Your task to perform on an android device: change your default location settings in chrome Image 0: 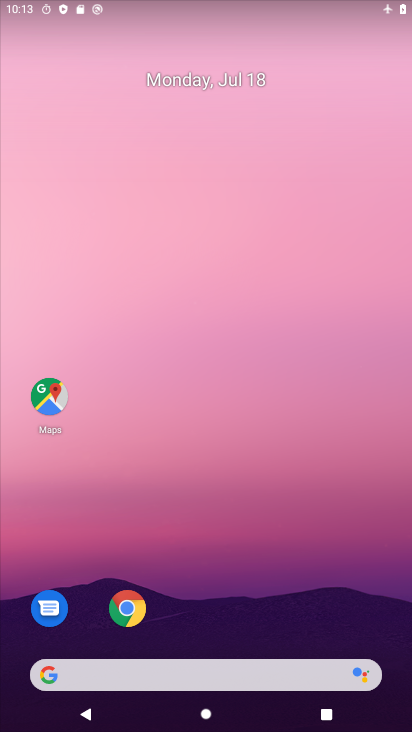
Step 0: click (305, 171)
Your task to perform on an android device: change your default location settings in chrome Image 1: 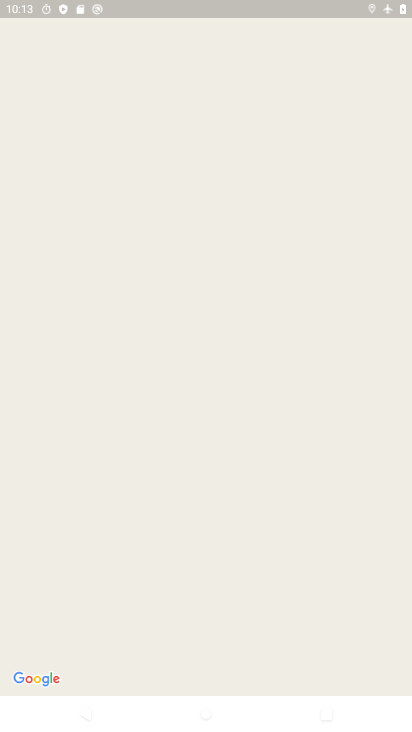
Step 1: press back button
Your task to perform on an android device: change your default location settings in chrome Image 2: 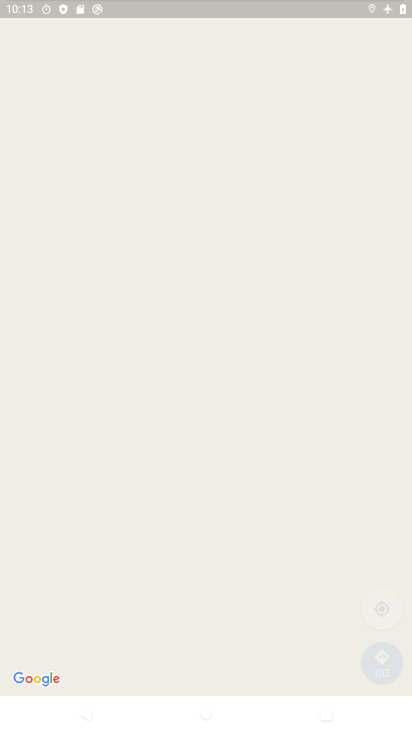
Step 2: press back button
Your task to perform on an android device: change your default location settings in chrome Image 3: 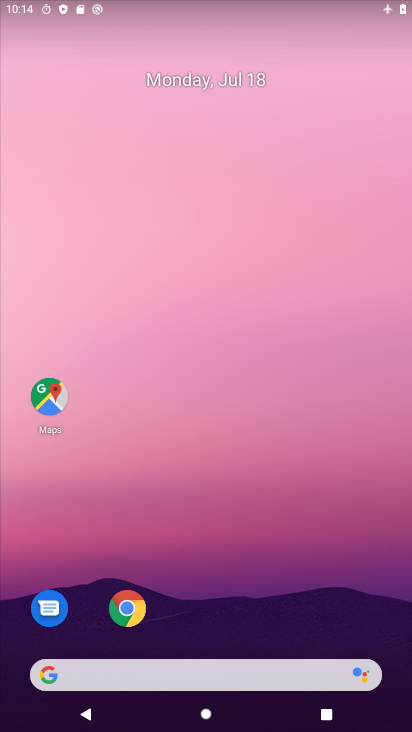
Step 3: drag from (250, 592) to (239, 52)
Your task to perform on an android device: change your default location settings in chrome Image 4: 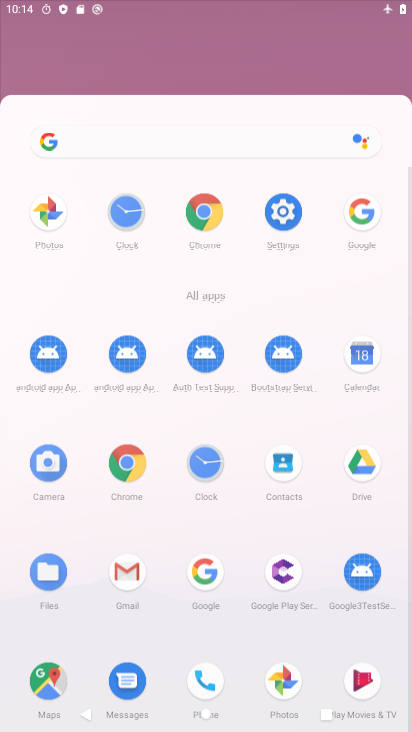
Step 4: drag from (264, 357) to (218, 23)
Your task to perform on an android device: change your default location settings in chrome Image 5: 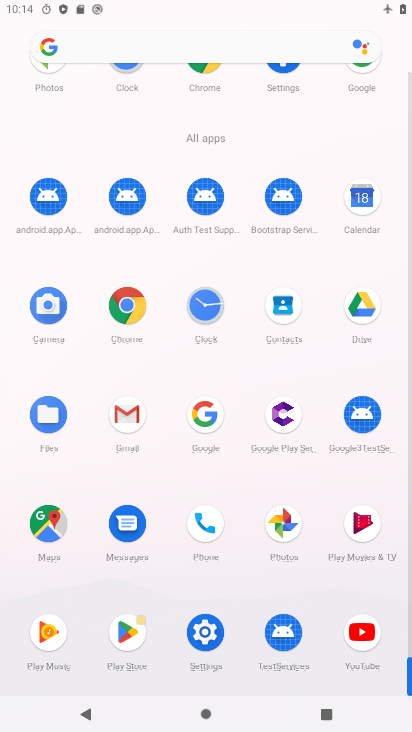
Step 5: click (123, 298)
Your task to perform on an android device: change your default location settings in chrome Image 6: 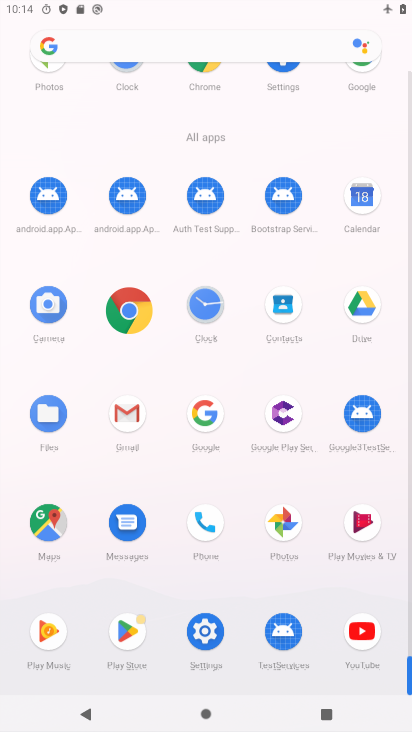
Step 6: click (122, 303)
Your task to perform on an android device: change your default location settings in chrome Image 7: 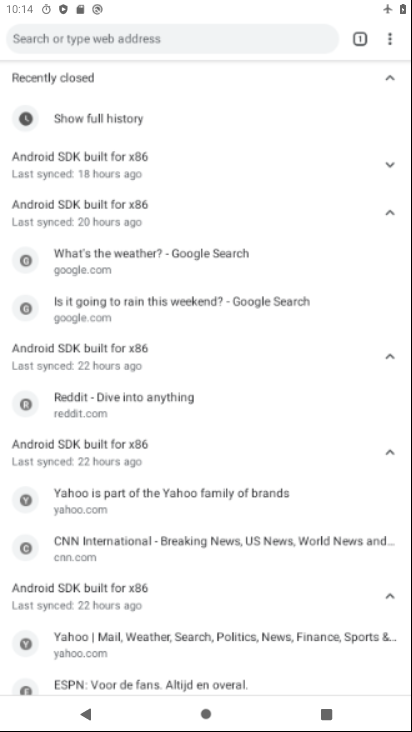
Step 7: click (136, 310)
Your task to perform on an android device: change your default location settings in chrome Image 8: 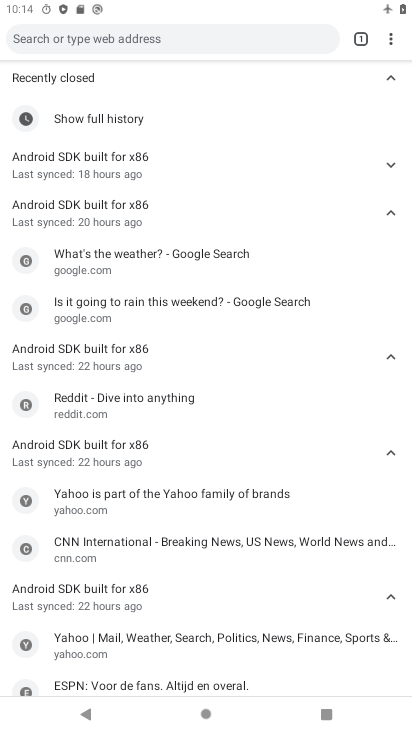
Step 8: drag from (389, 40) to (242, 329)
Your task to perform on an android device: change your default location settings in chrome Image 9: 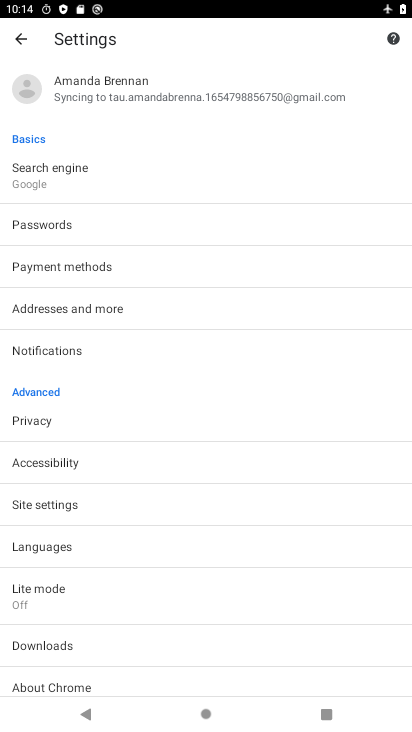
Step 9: click (45, 543)
Your task to perform on an android device: change your default location settings in chrome Image 10: 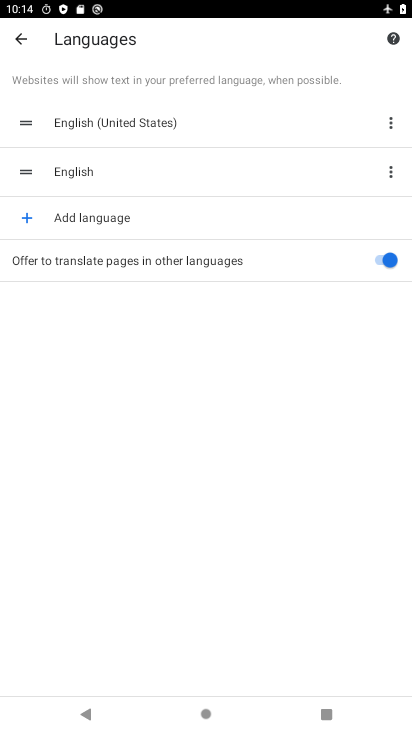
Step 10: click (20, 44)
Your task to perform on an android device: change your default location settings in chrome Image 11: 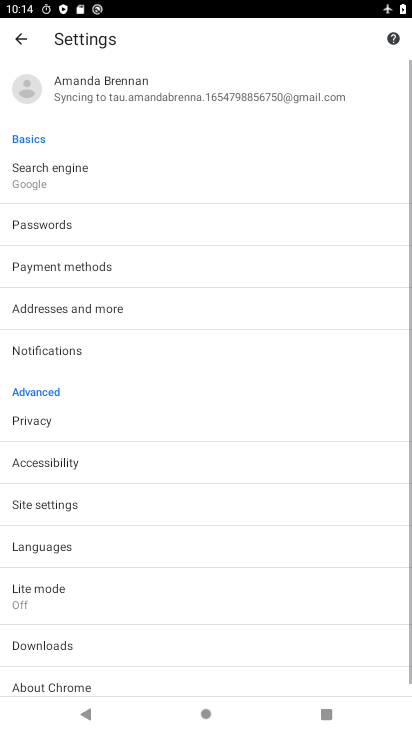
Step 11: click (49, 513)
Your task to perform on an android device: change your default location settings in chrome Image 12: 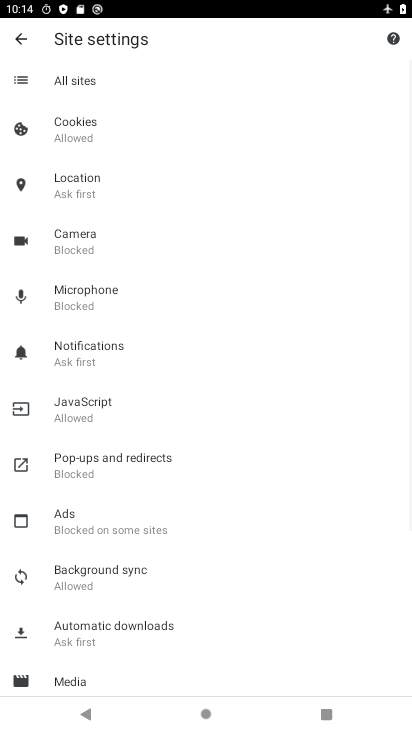
Step 12: click (89, 178)
Your task to perform on an android device: change your default location settings in chrome Image 13: 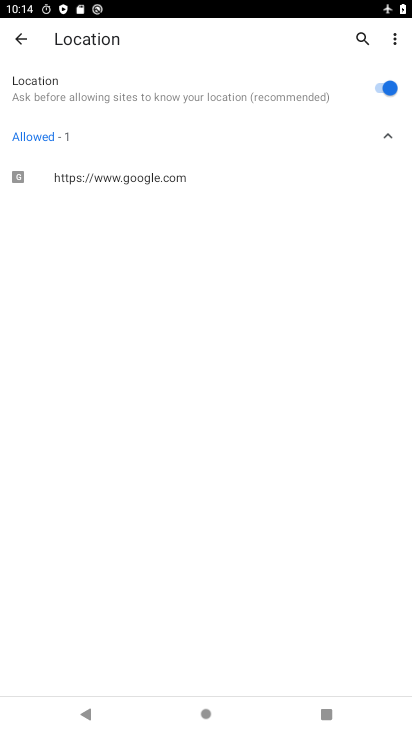
Step 13: click (395, 85)
Your task to perform on an android device: change your default location settings in chrome Image 14: 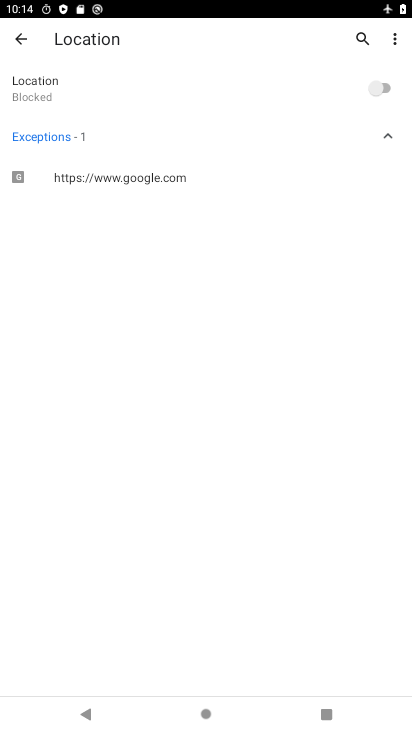
Step 14: task complete